Your task to perform on an android device: Search for Mexican restaurants on Maps Image 0: 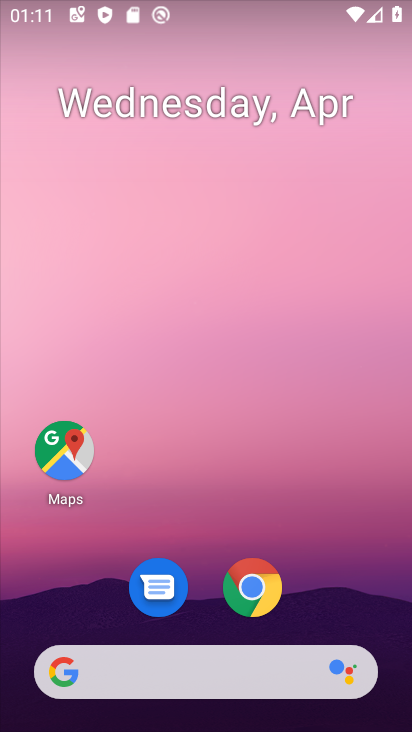
Step 0: click (65, 452)
Your task to perform on an android device: Search for Mexican restaurants on Maps Image 1: 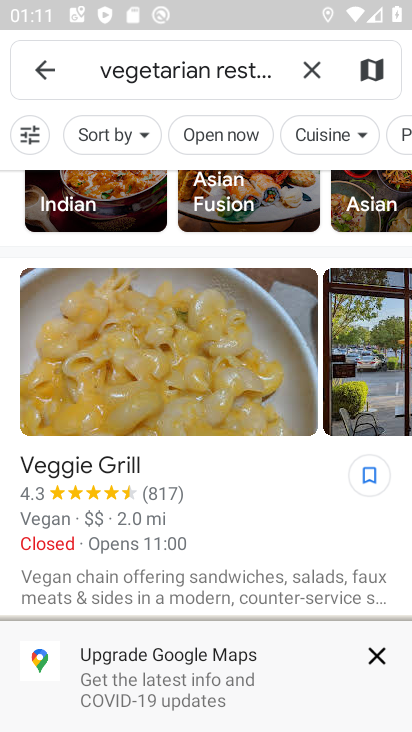
Step 1: click (308, 70)
Your task to perform on an android device: Search for Mexican restaurants on Maps Image 2: 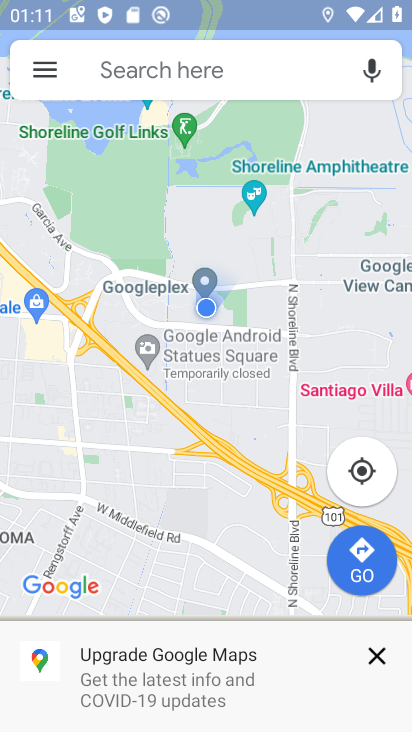
Step 2: click (165, 62)
Your task to perform on an android device: Search for Mexican restaurants on Maps Image 3: 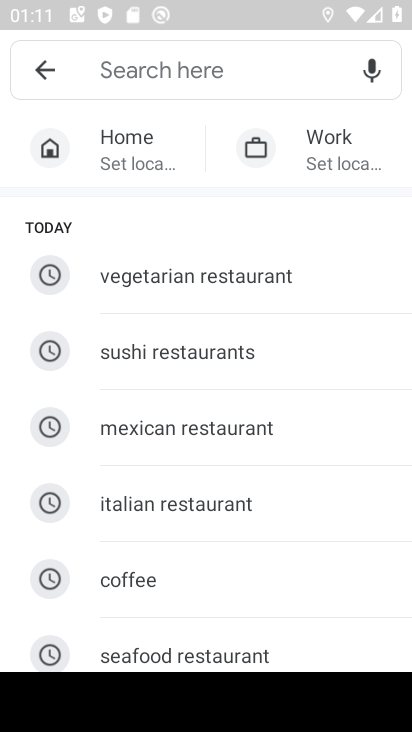
Step 3: type "mexican restaurant"
Your task to perform on an android device: Search for Mexican restaurants on Maps Image 4: 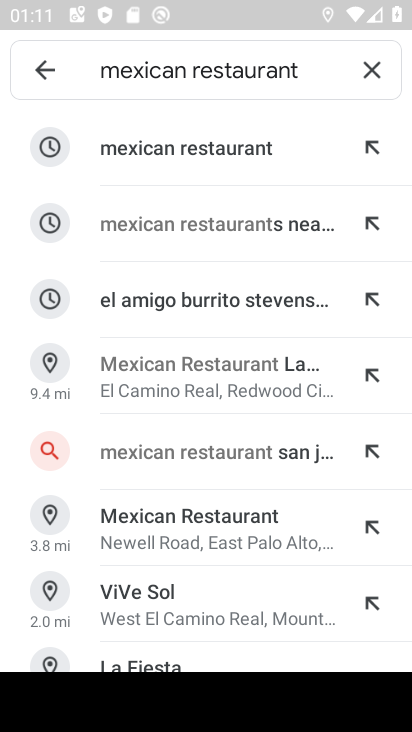
Step 4: click (173, 149)
Your task to perform on an android device: Search for Mexican restaurants on Maps Image 5: 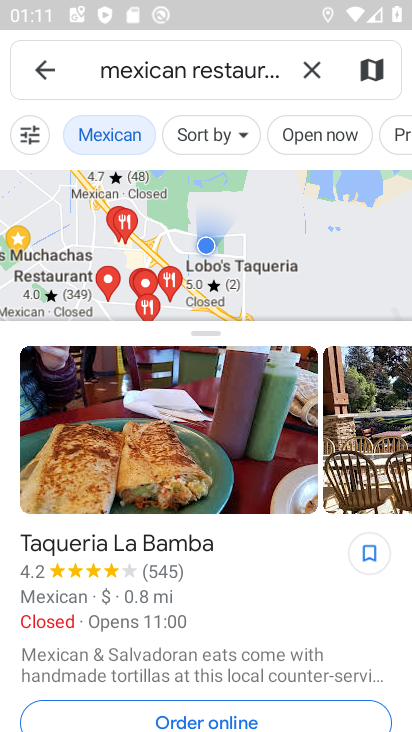
Step 5: task complete